Your task to perform on an android device: show emergency info Image 0: 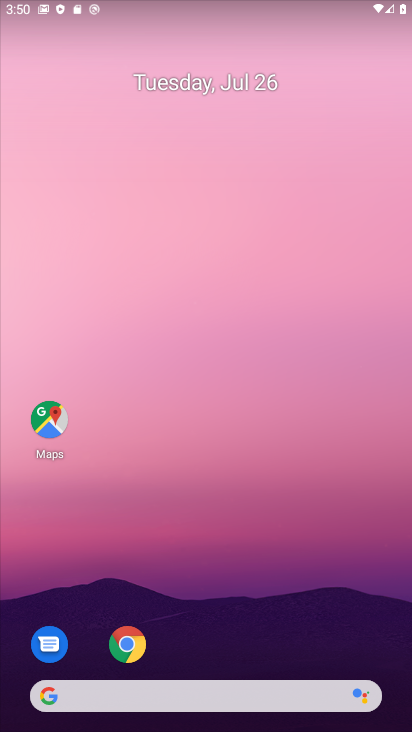
Step 0: drag from (398, 670) to (358, 85)
Your task to perform on an android device: show emergency info Image 1: 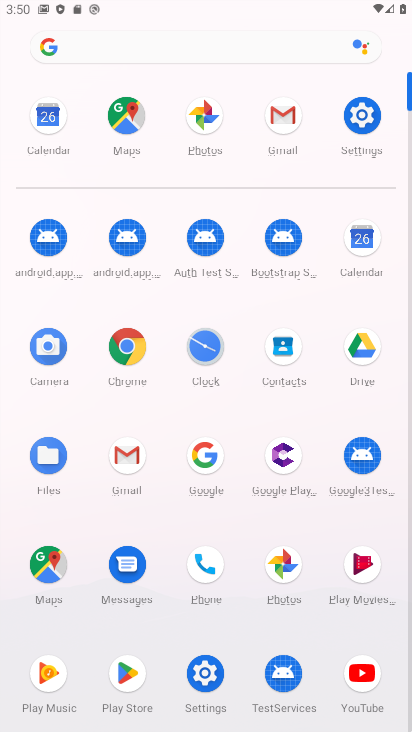
Step 1: click (206, 674)
Your task to perform on an android device: show emergency info Image 2: 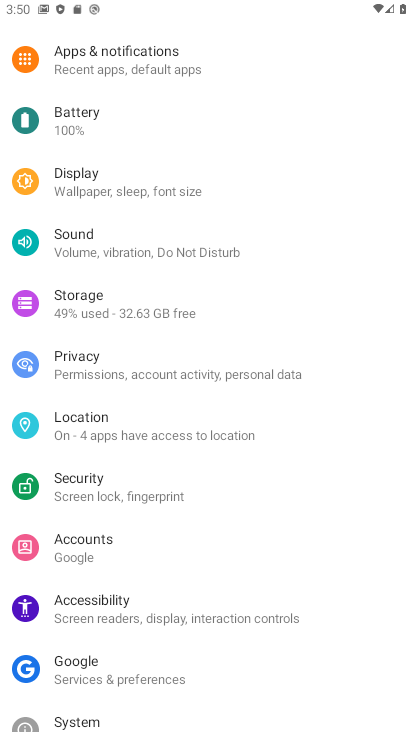
Step 2: drag from (303, 667) to (342, 213)
Your task to perform on an android device: show emergency info Image 3: 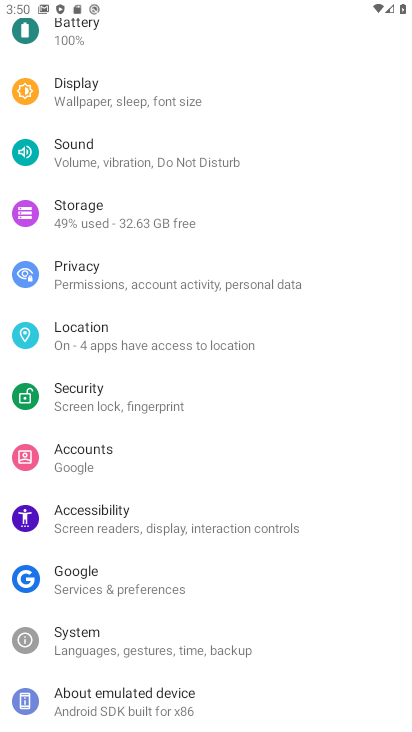
Step 3: click (119, 697)
Your task to perform on an android device: show emergency info Image 4: 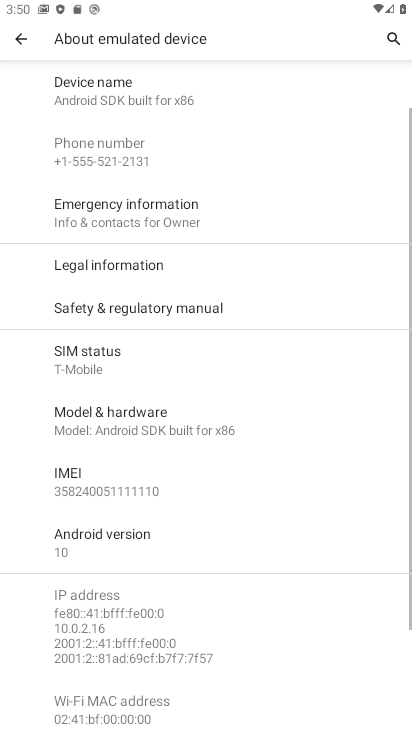
Step 4: click (111, 208)
Your task to perform on an android device: show emergency info Image 5: 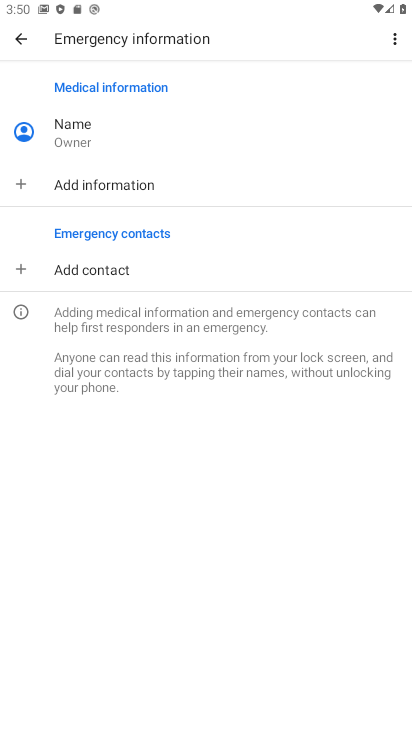
Step 5: task complete